Your task to perform on an android device: turn on javascript in the chrome app Image 0: 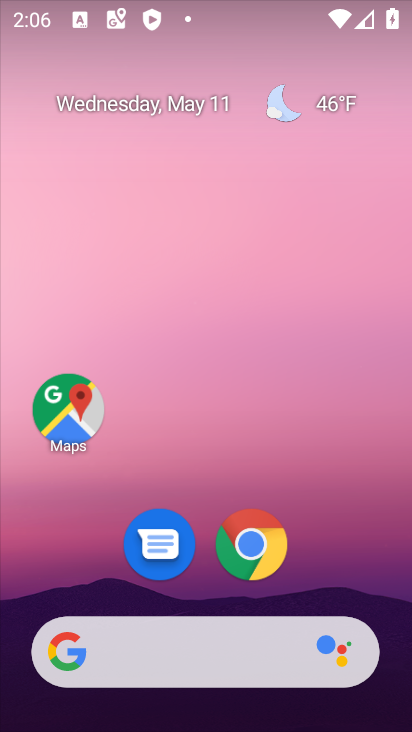
Step 0: click (250, 543)
Your task to perform on an android device: turn on javascript in the chrome app Image 1: 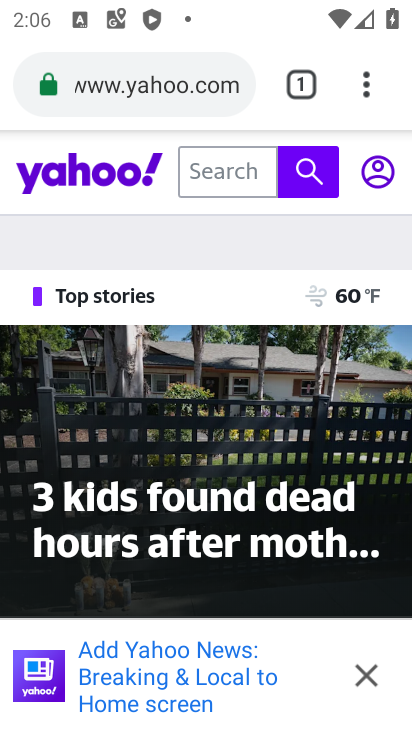
Step 1: click (364, 96)
Your task to perform on an android device: turn on javascript in the chrome app Image 2: 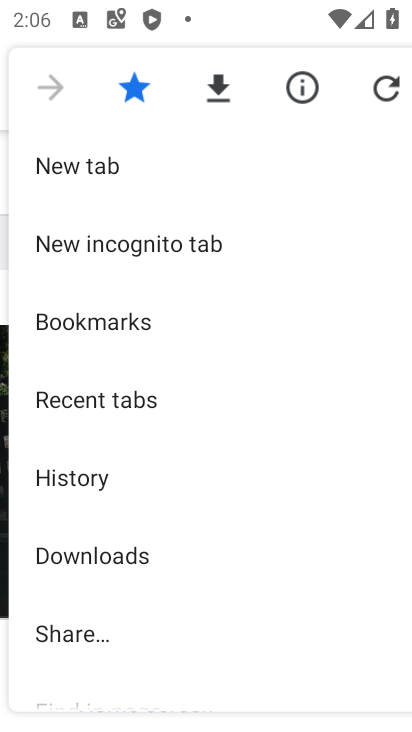
Step 2: drag from (195, 617) to (195, 348)
Your task to perform on an android device: turn on javascript in the chrome app Image 3: 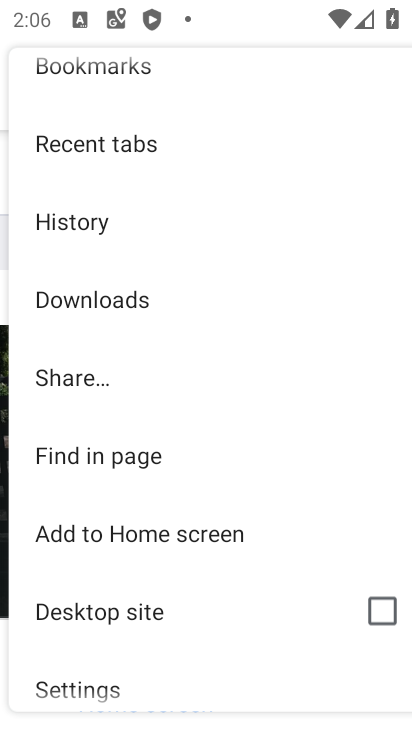
Step 3: drag from (202, 638) to (209, 268)
Your task to perform on an android device: turn on javascript in the chrome app Image 4: 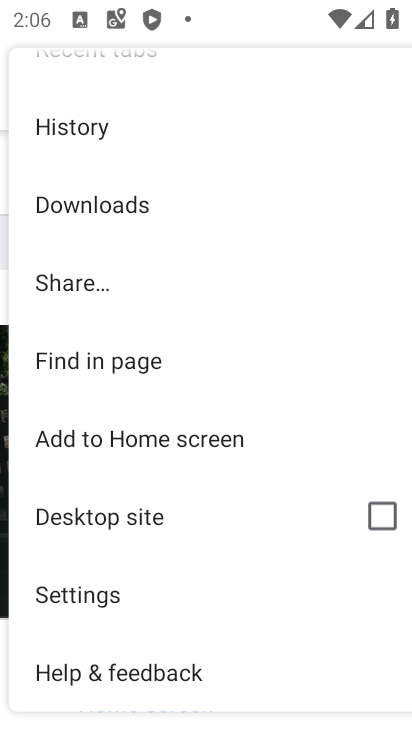
Step 4: click (69, 603)
Your task to perform on an android device: turn on javascript in the chrome app Image 5: 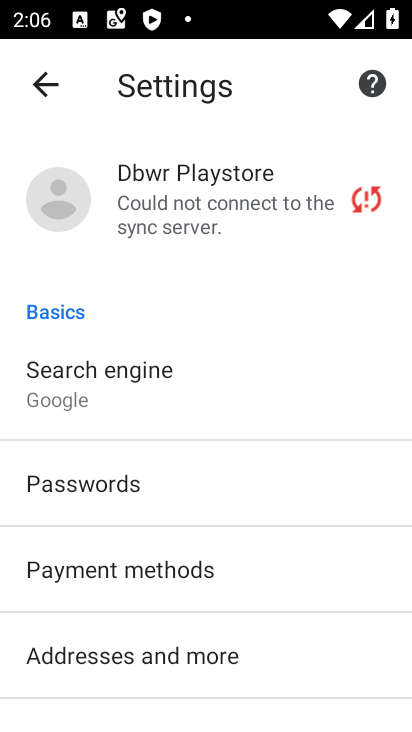
Step 5: drag from (332, 646) to (250, 271)
Your task to perform on an android device: turn on javascript in the chrome app Image 6: 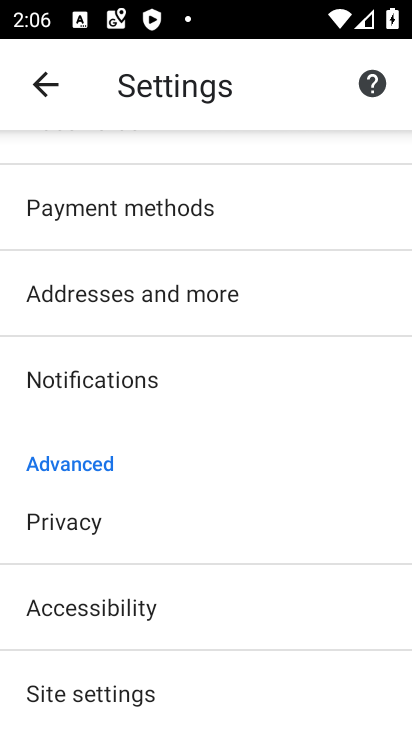
Step 6: drag from (223, 706) to (250, 301)
Your task to perform on an android device: turn on javascript in the chrome app Image 7: 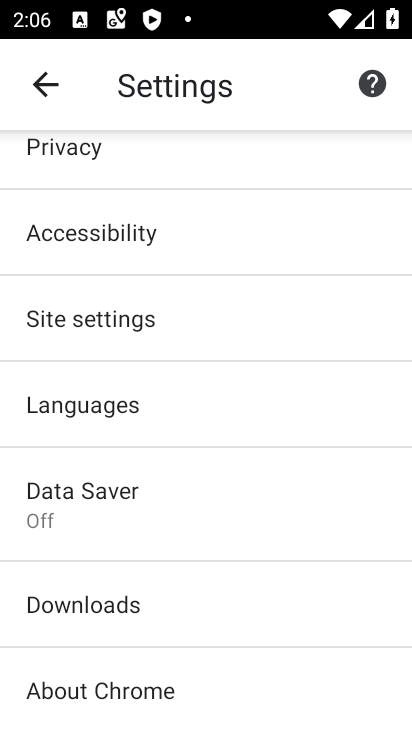
Step 7: click (90, 322)
Your task to perform on an android device: turn on javascript in the chrome app Image 8: 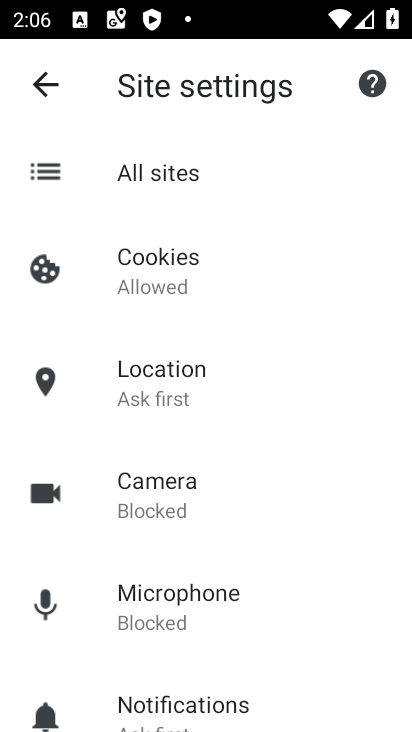
Step 8: drag from (273, 646) to (271, 251)
Your task to perform on an android device: turn on javascript in the chrome app Image 9: 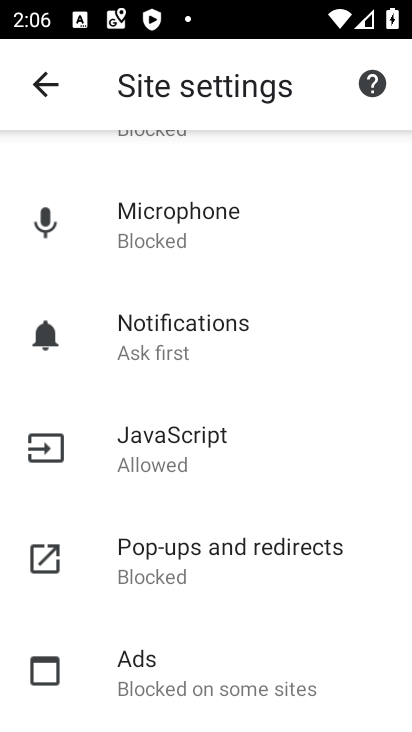
Step 9: click (141, 458)
Your task to perform on an android device: turn on javascript in the chrome app Image 10: 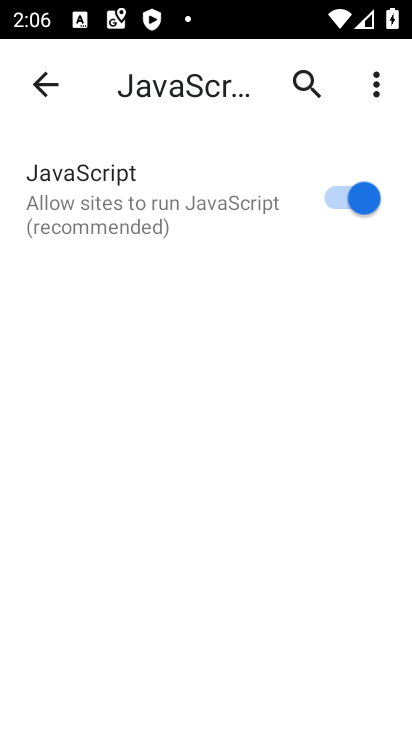
Step 10: task complete